Your task to perform on an android device: open wifi settings Image 0: 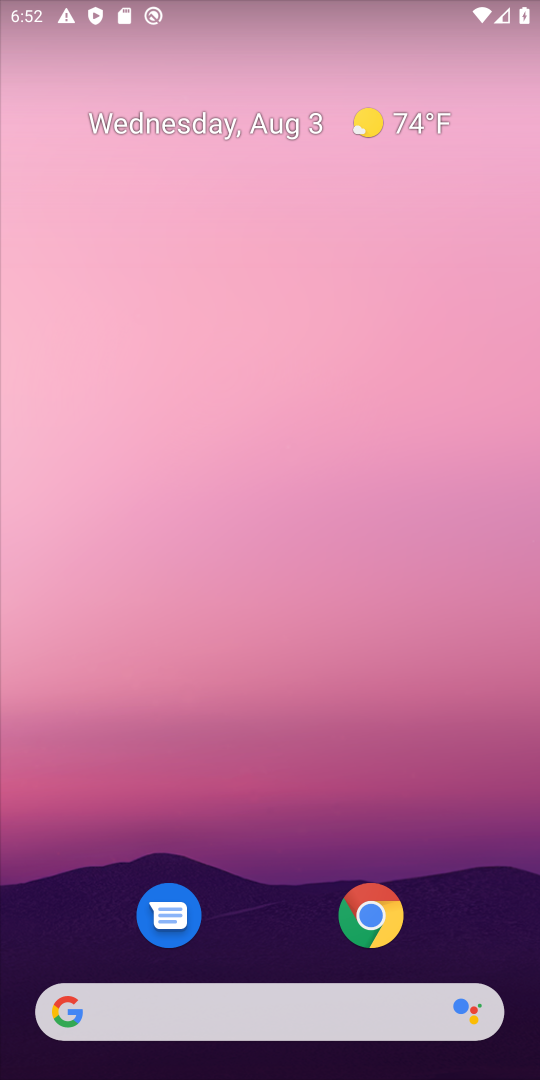
Step 0: drag from (324, 1049) to (255, 489)
Your task to perform on an android device: open wifi settings Image 1: 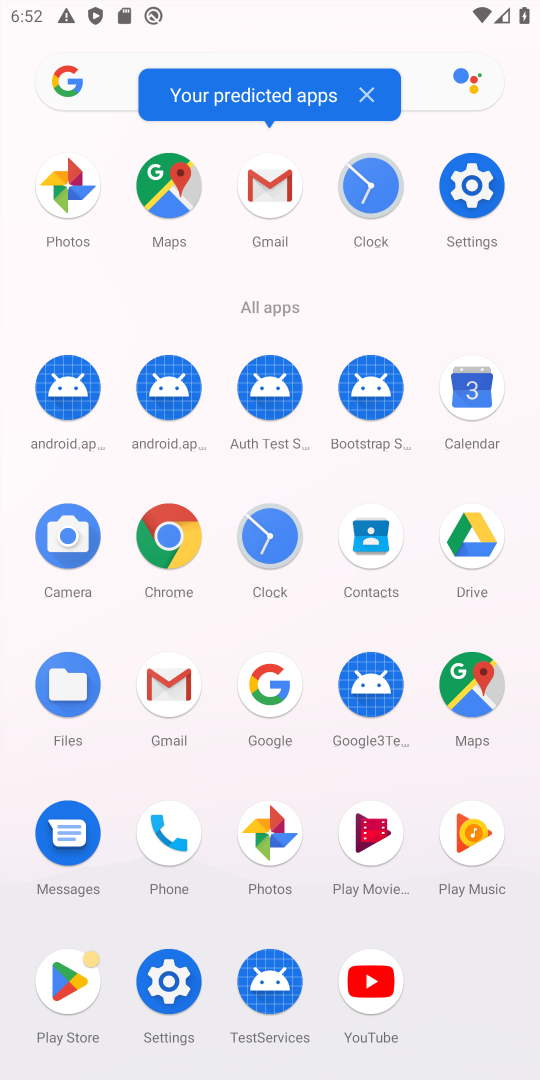
Step 1: click (476, 195)
Your task to perform on an android device: open wifi settings Image 2: 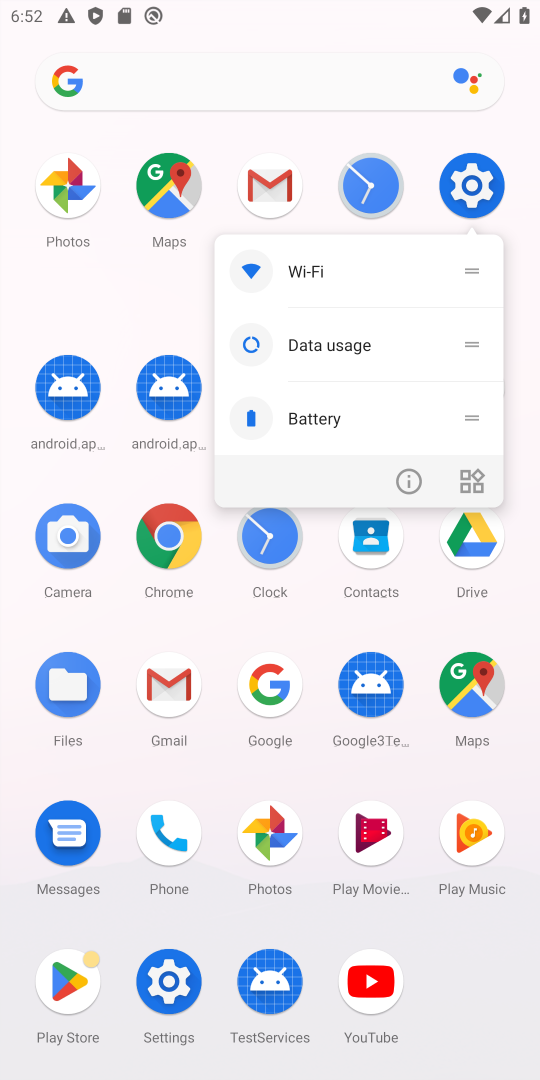
Step 2: click (476, 195)
Your task to perform on an android device: open wifi settings Image 3: 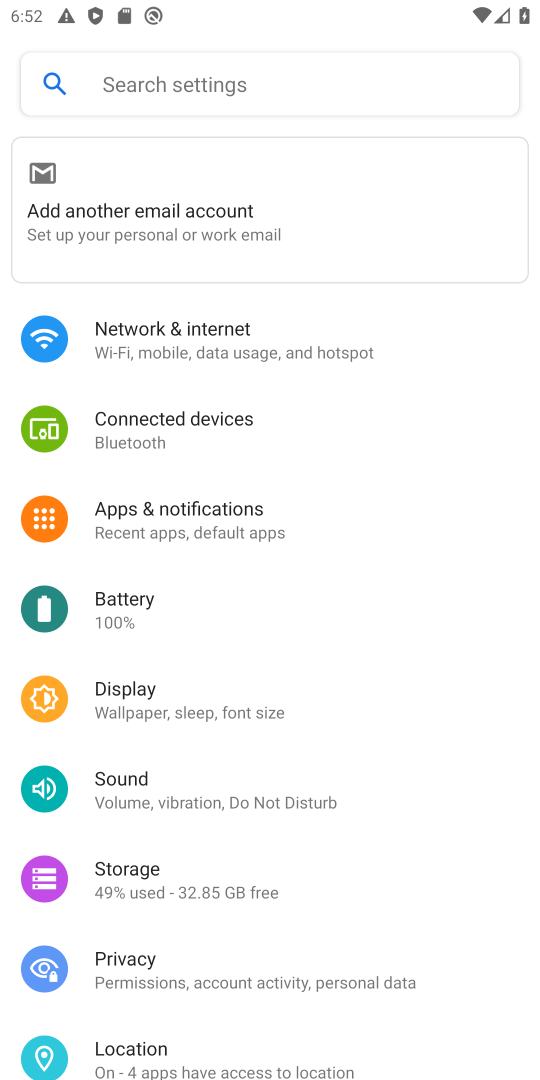
Step 3: click (190, 322)
Your task to perform on an android device: open wifi settings Image 4: 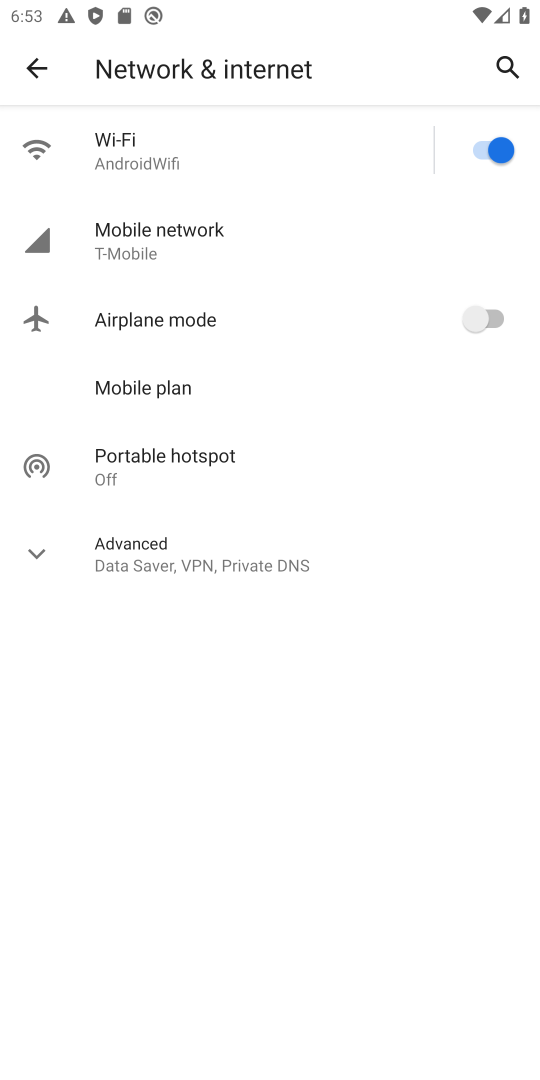
Step 4: click (173, 166)
Your task to perform on an android device: open wifi settings Image 5: 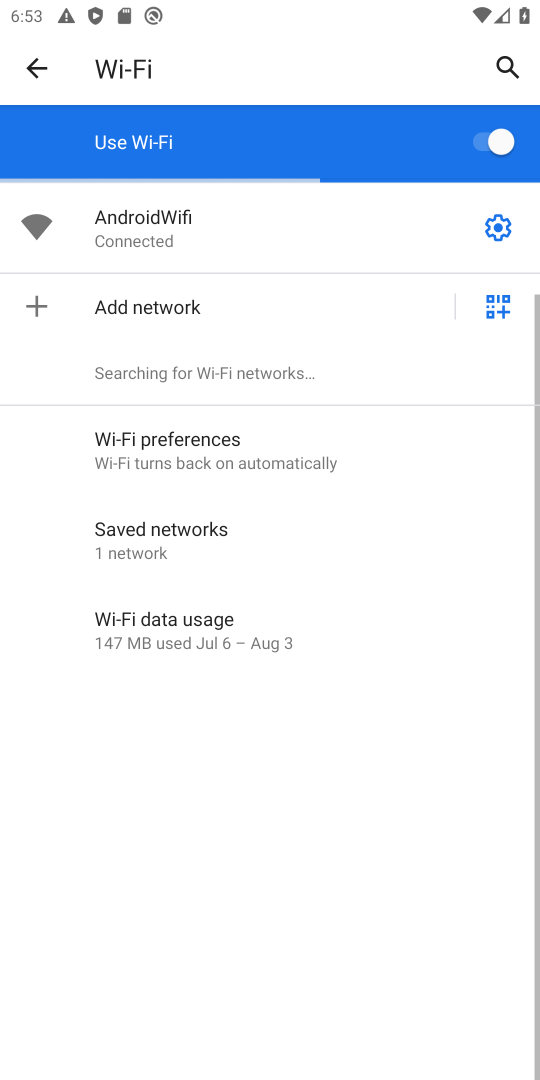
Step 5: task complete